Your task to perform on an android device: stop showing notifications on the lock screen Image 0: 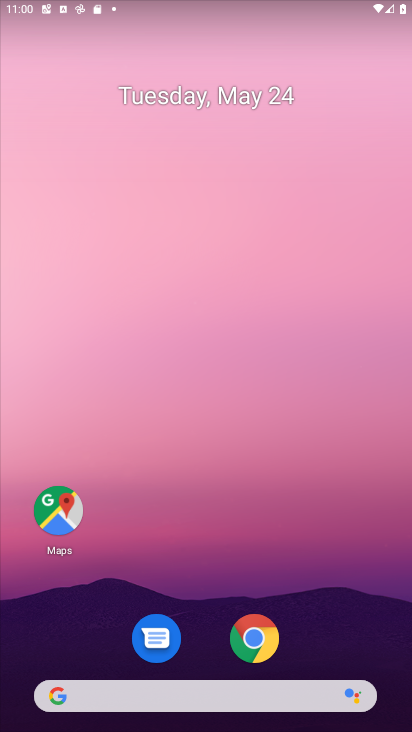
Step 0: drag from (261, 727) to (252, 75)
Your task to perform on an android device: stop showing notifications on the lock screen Image 1: 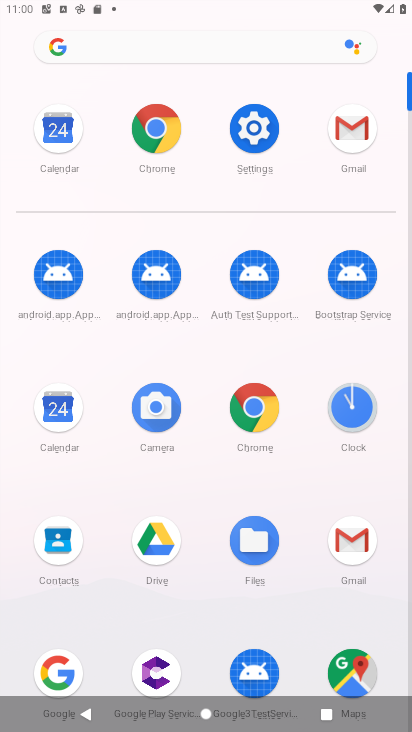
Step 1: click (251, 114)
Your task to perform on an android device: stop showing notifications on the lock screen Image 2: 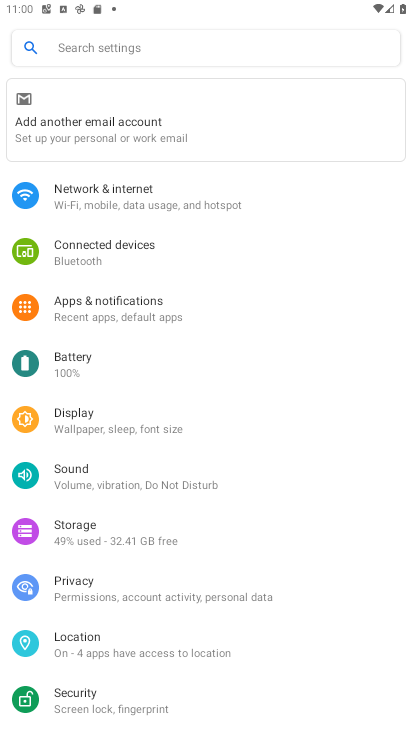
Step 2: click (161, 300)
Your task to perform on an android device: stop showing notifications on the lock screen Image 3: 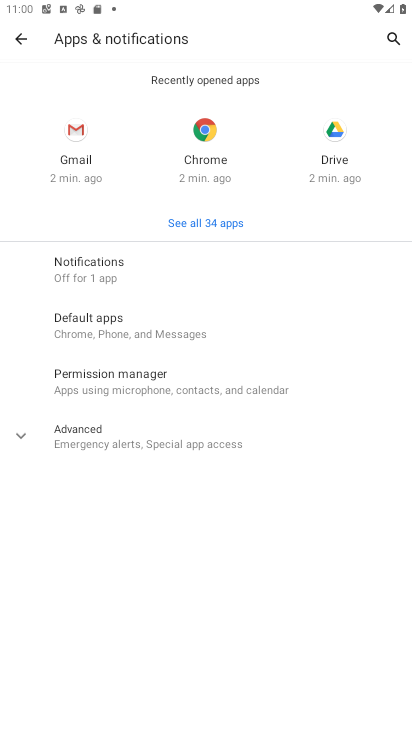
Step 3: click (110, 278)
Your task to perform on an android device: stop showing notifications on the lock screen Image 4: 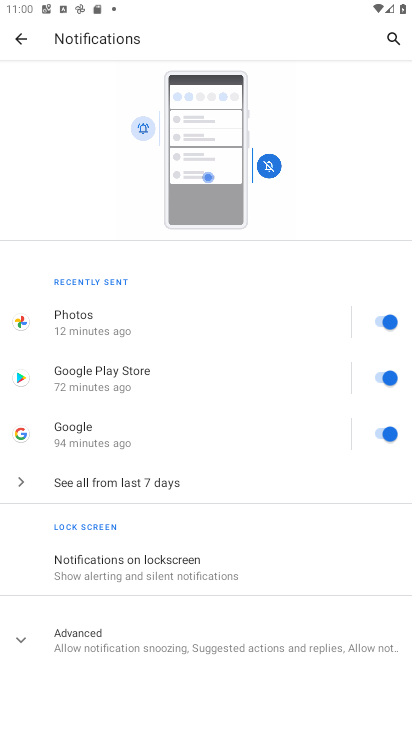
Step 4: click (215, 651)
Your task to perform on an android device: stop showing notifications on the lock screen Image 5: 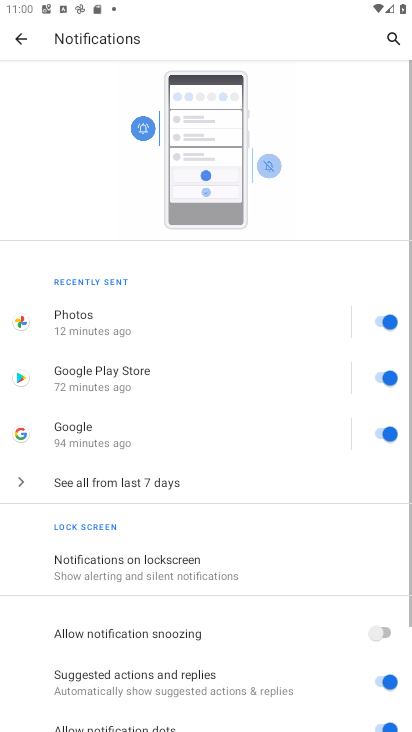
Step 5: click (199, 577)
Your task to perform on an android device: stop showing notifications on the lock screen Image 6: 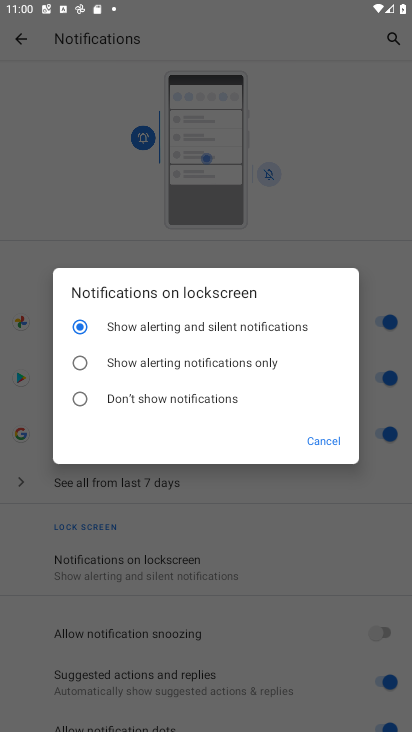
Step 6: task complete